Your task to perform on an android device: uninstall "Booking.com: Hotels and more" Image 0: 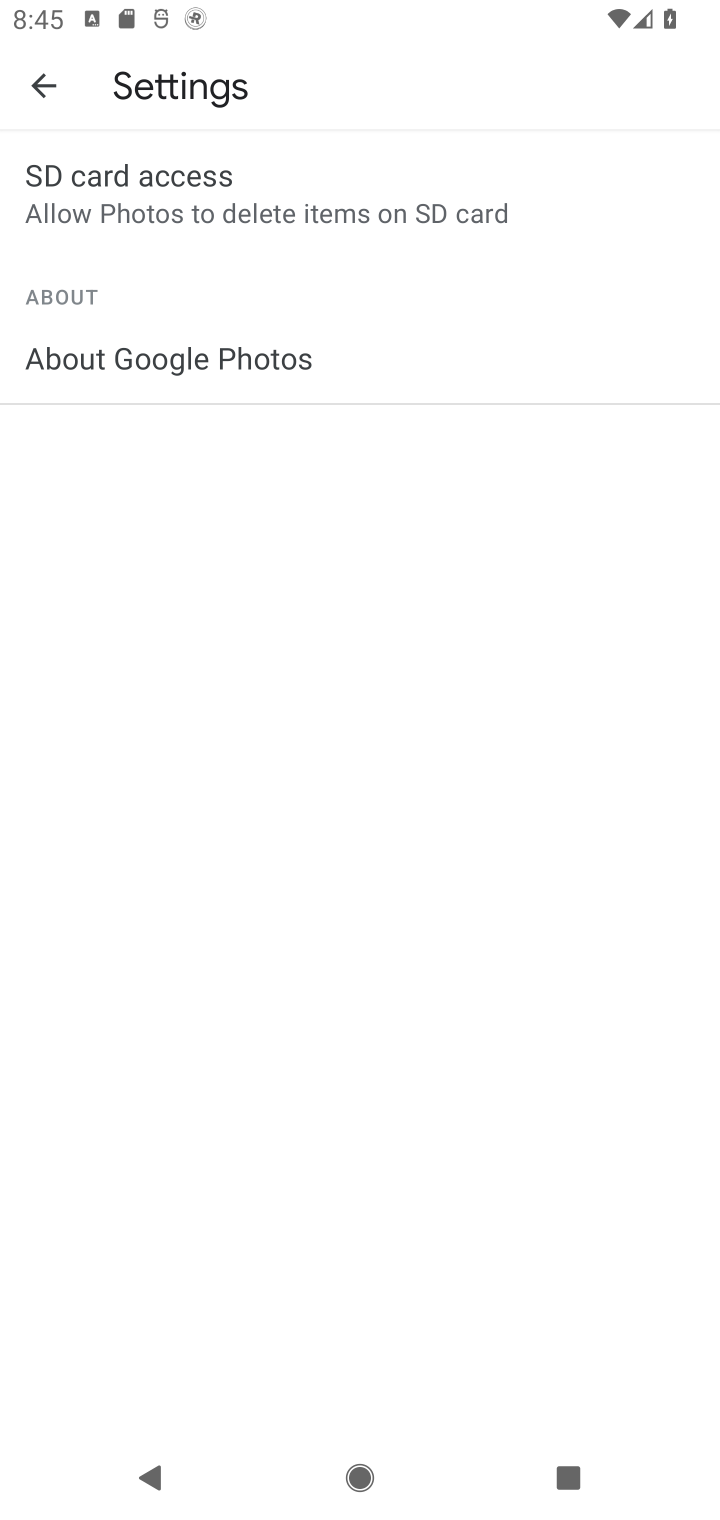
Step 0: press home button
Your task to perform on an android device: uninstall "Booking.com: Hotels and more" Image 1: 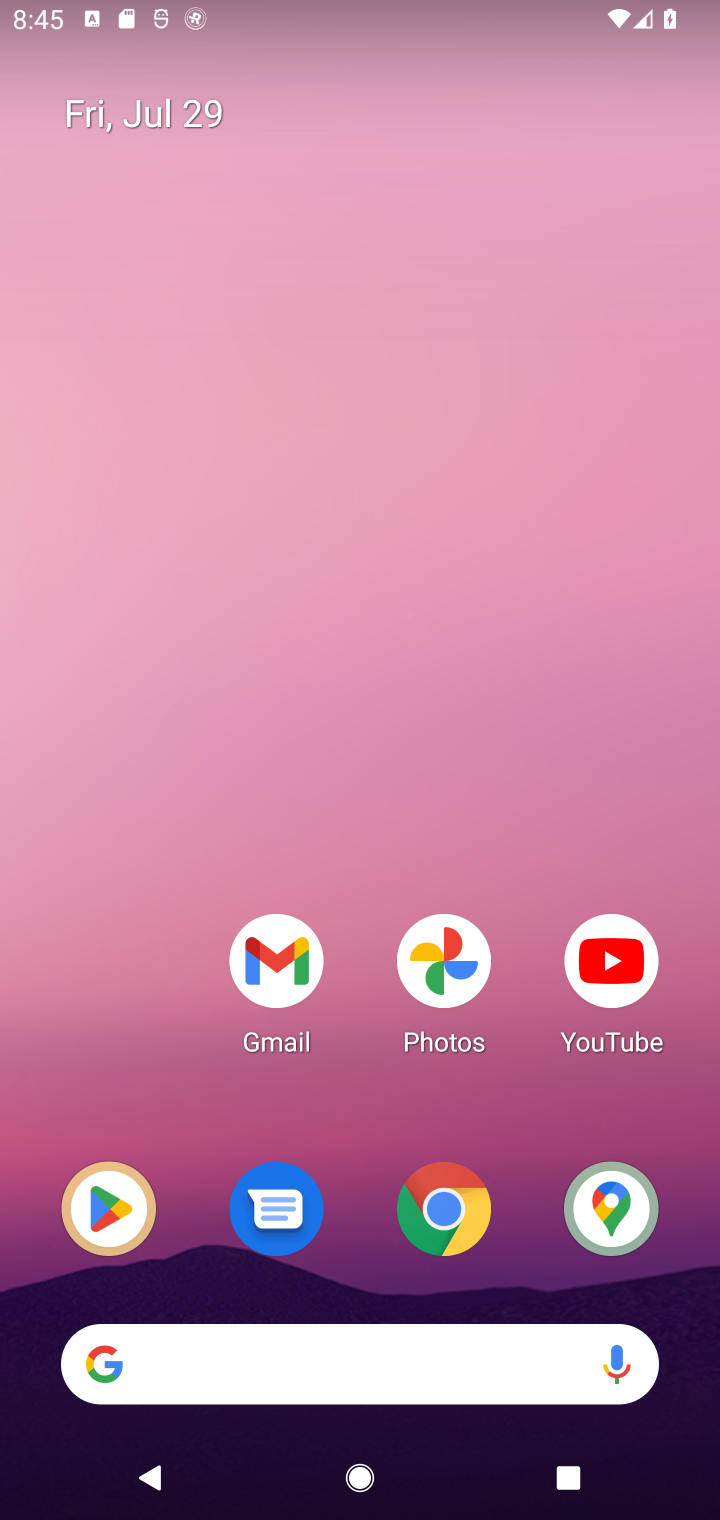
Step 1: click (105, 1204)
Your task to perform on an android device: uninstall "Booking.com: Hotels and more" Image 2: 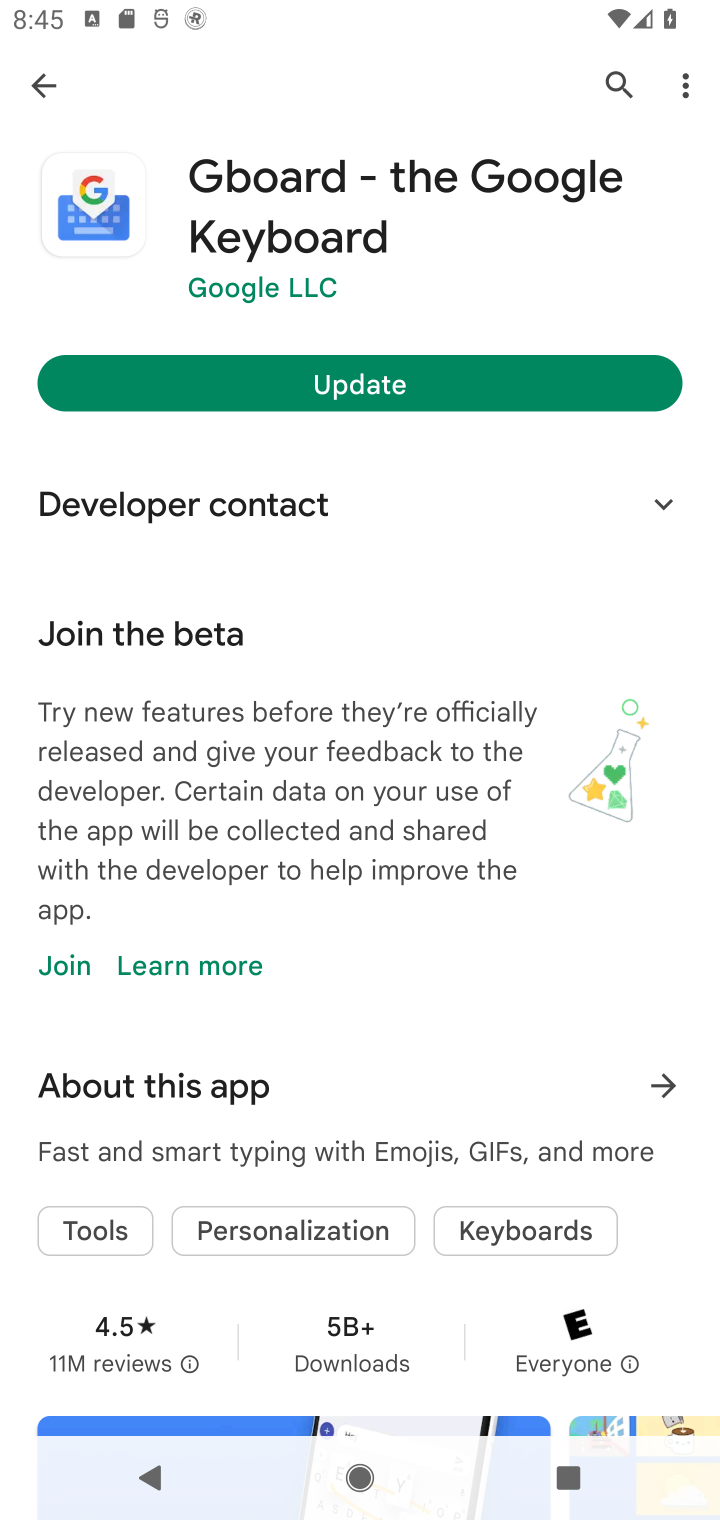
Step 2: click (606, 90)
Your task to perform on an android device: uninstall "Booking.com: Hotels and more" Image 3: 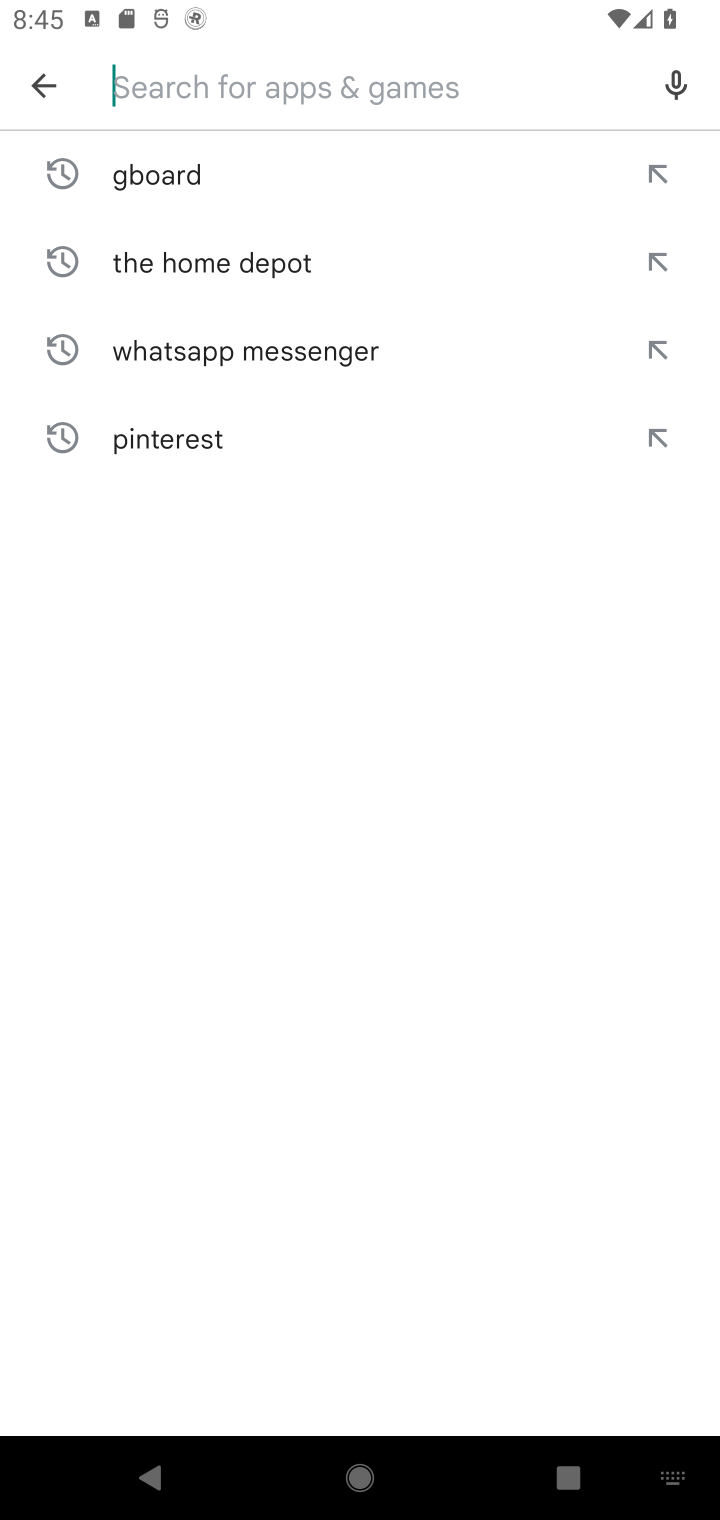
Step 3: click (418, 102)
Your task to perform on an android device: uninstall "Booking.com: Hotels and more" Image 4: 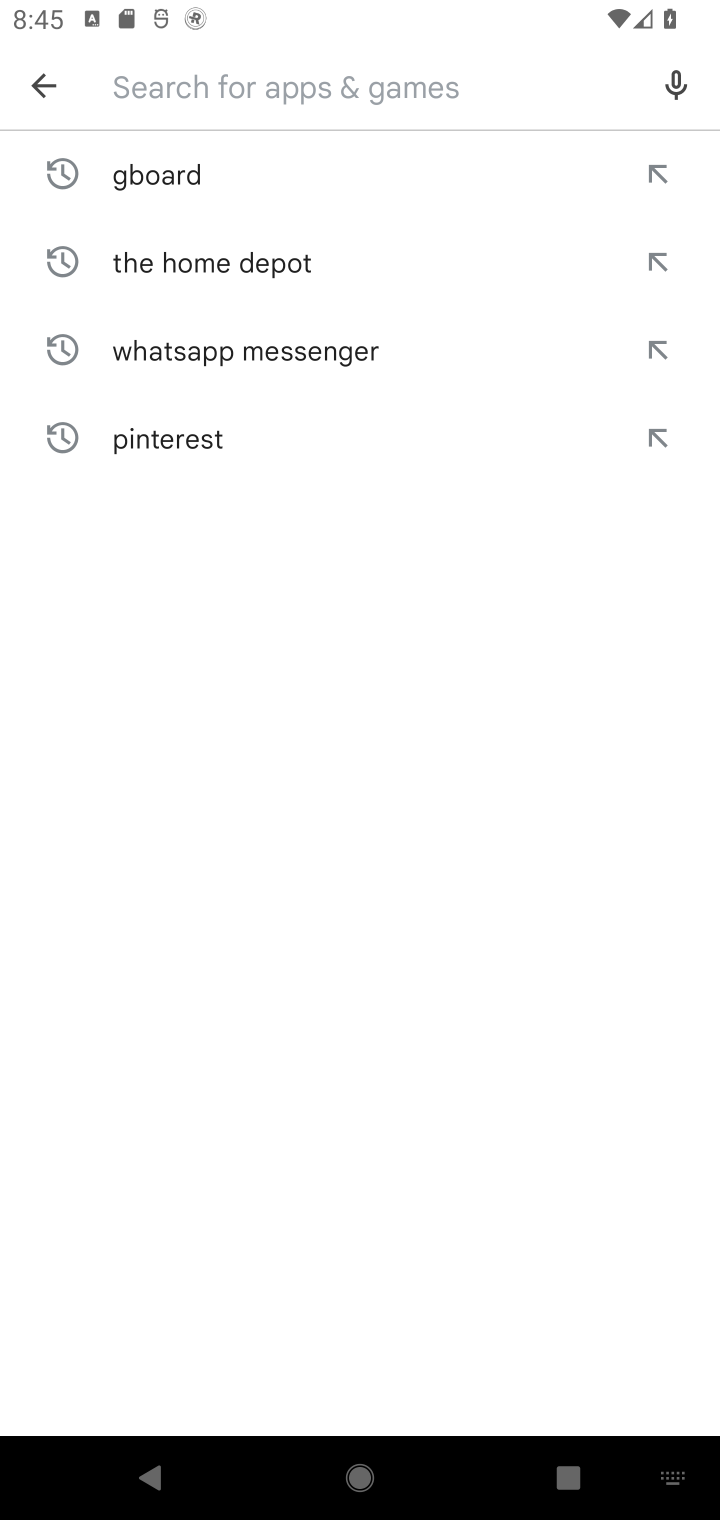
Step 4: type "Booking.com: Hotels and more"
Your task to perform on an android device: uninstall "Booking.com: Hotels and more" Image 5: 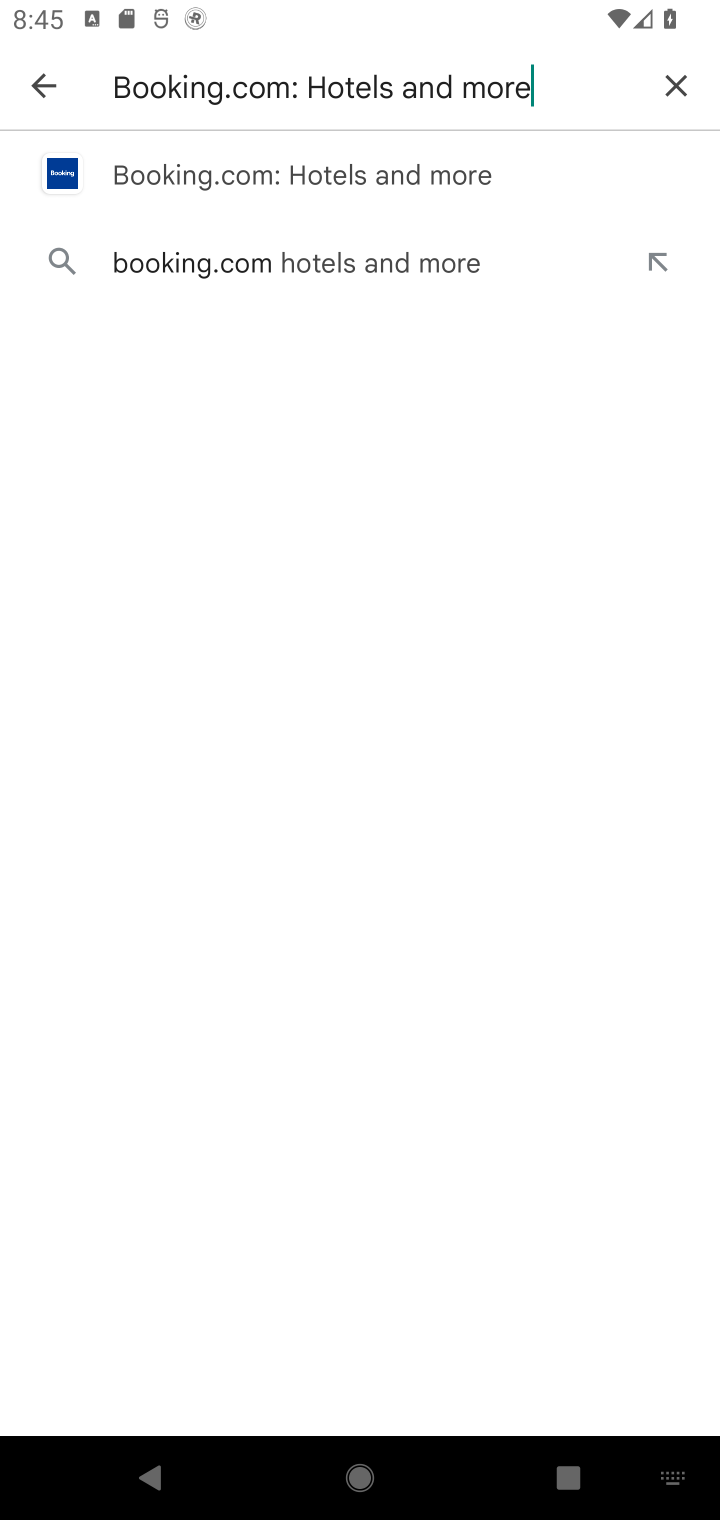
Step 5: click (355, 151)
Your task to perform on an android device: uninstall "Booking.com: Hotels and more" Image 6: 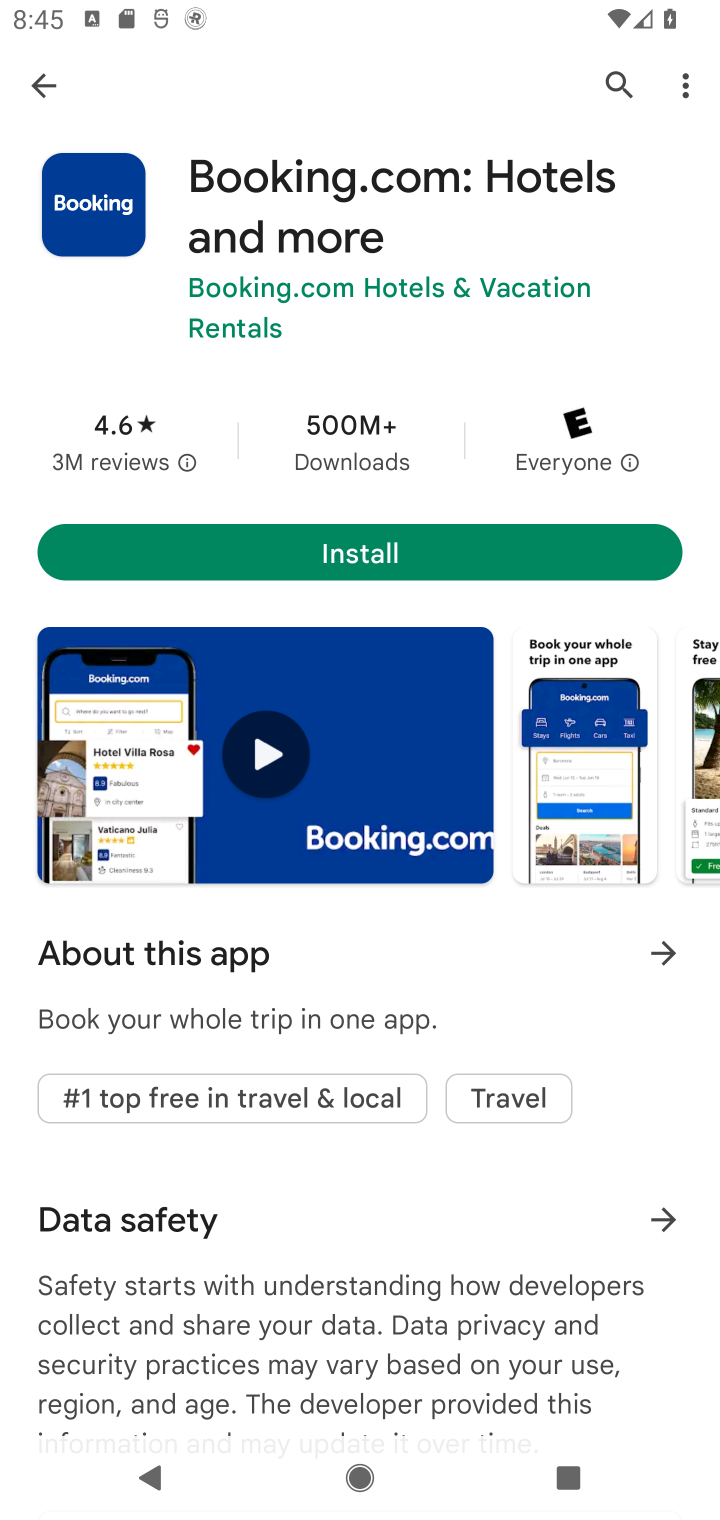
Step 6: task complete